Your task to perform on an android device: See recent photos Image 0: 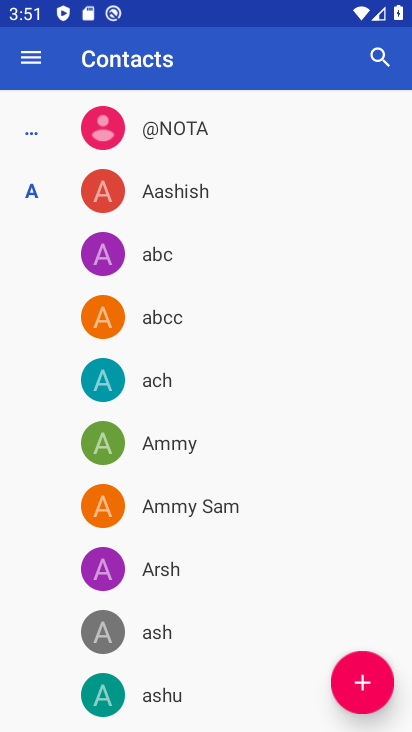
Step 0: press back button
Your task to perform on an android device: See recent photos Image 1: 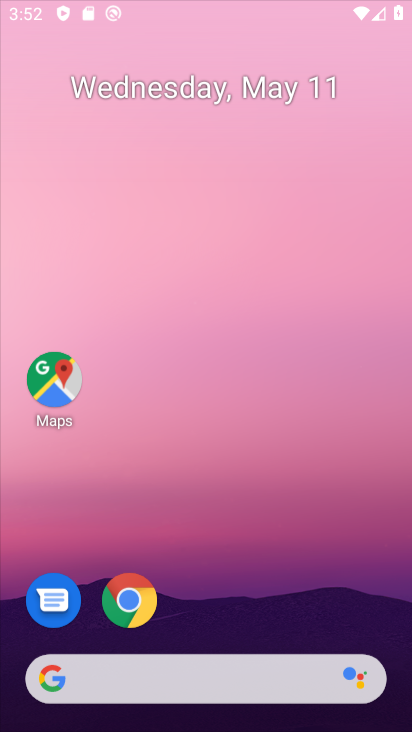
Step 1: press home button
Your task to perform on an android device: See recent photos Image 2: 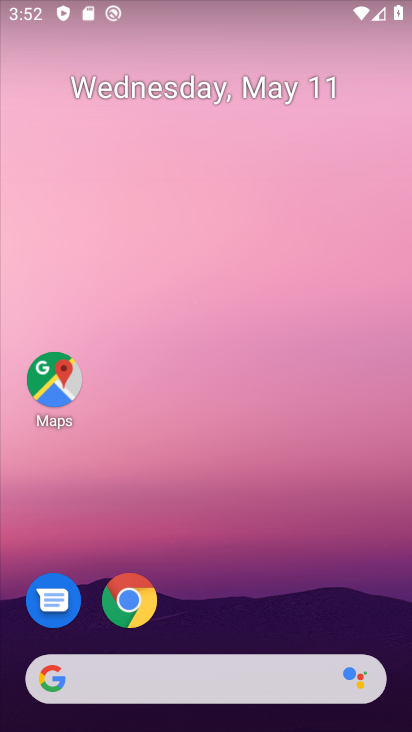
Step 2: drag from (194, 640) to (310, 112)
Your task to perform on an android device: See recent photos Image 3: 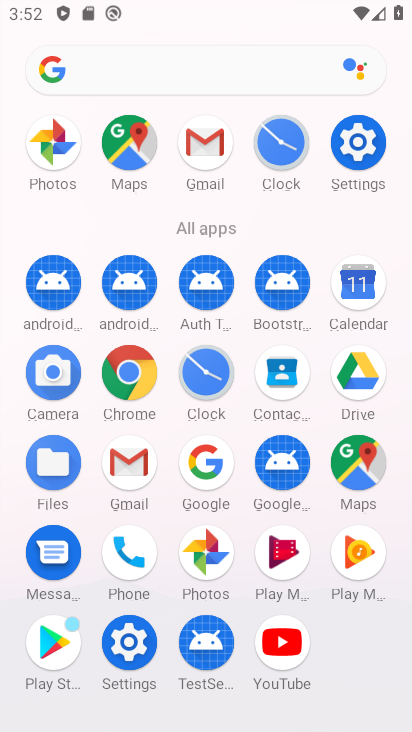
Step 3: click (238, 539)
Your task to perform on an android device: See recent photos Image 4: 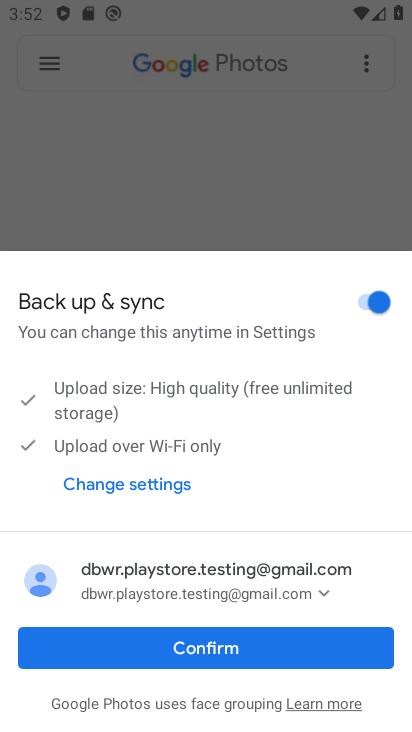
Step 4: click (209, 659)
Your task to perform on an android device: See recent photos Image 5: 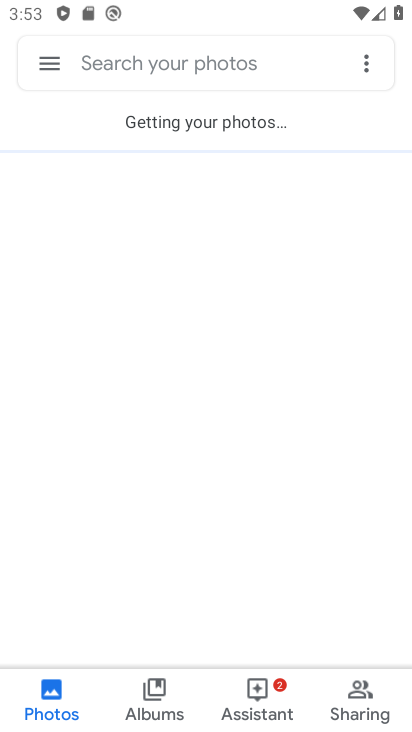
Step 5: task complete